Your task to perform on an android device: toggle translation in the chrome app Image 0: 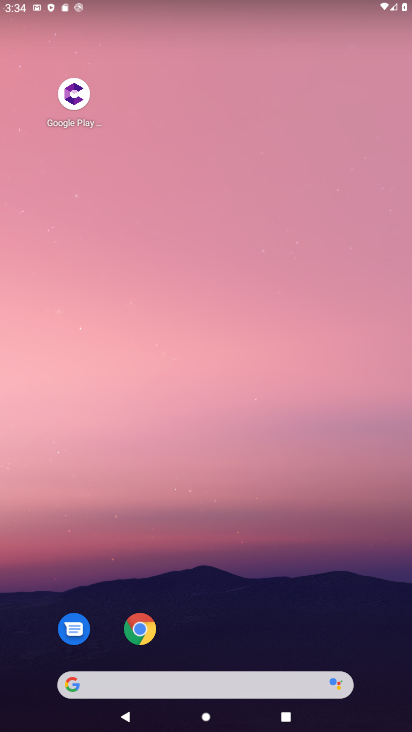
Step 0: drag from (357, 569) to (317, 87)
Your task to perform on an android device: toggle translation in the chrome app Image 1: 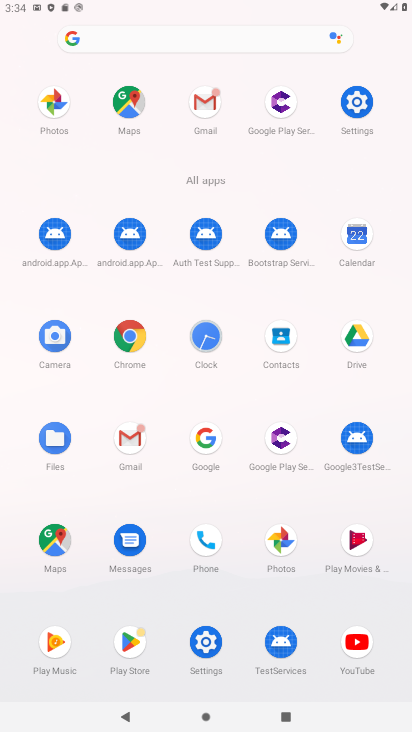
Step 1: click (135, 334)
Your task to perform on an android device: toggle translation in the chrome app Image 2: 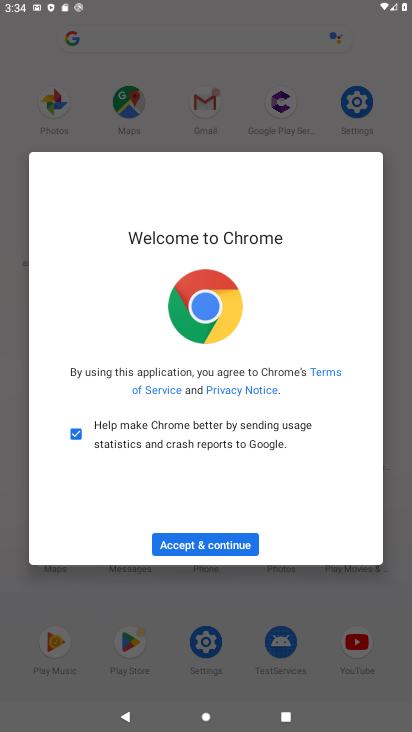
Step 2: click (234, 543)
Your task to perform on an android device: toggle translation in the chrome app Image 3: 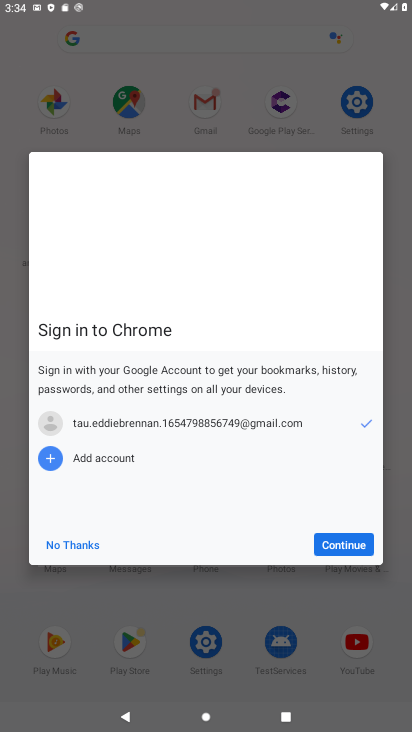
Step 3: click (335, 542)
Your task to perform on an android device: toggle translation in the chrome app Image 4: 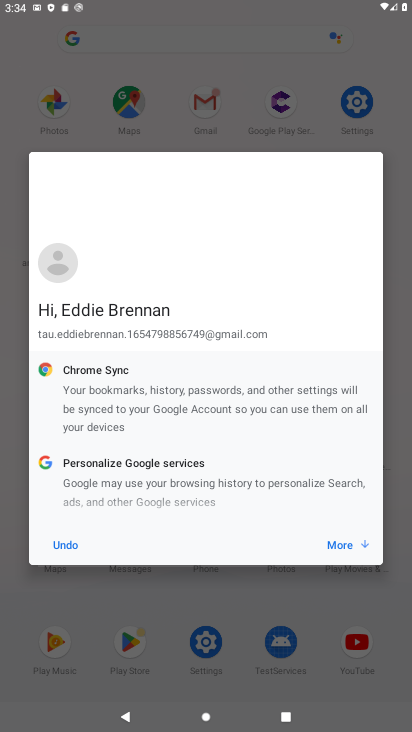
Step 4: click (336, 544)
Your task to perform on an android device: toggle translation in the chrome app Image 5: 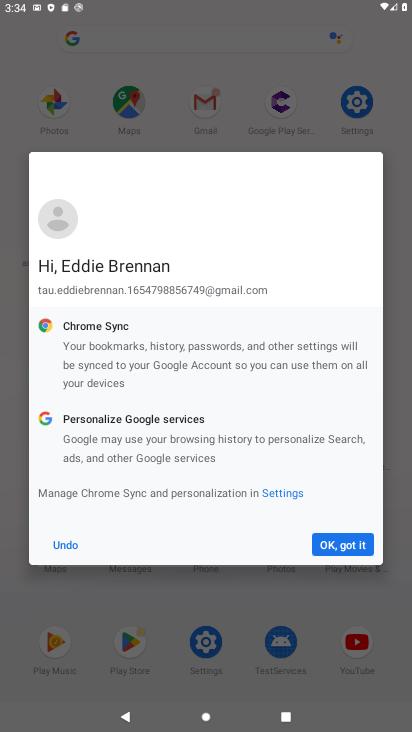
Step 5: click (346, 540)
Your task to perform on an android device: toggle translation in the chrome app Image 6: 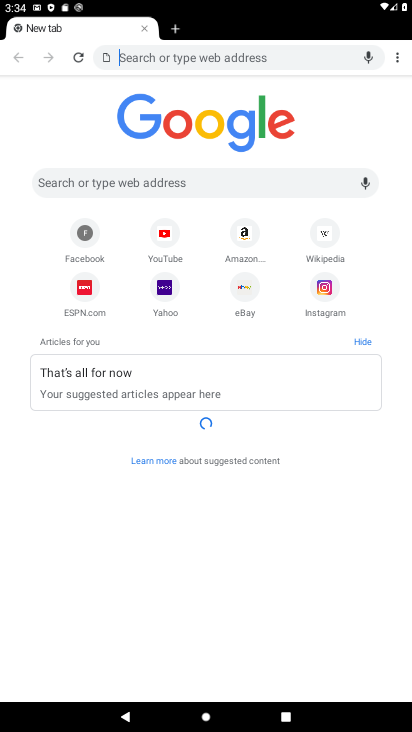
Step 6: drag from (402, 51) to (320, 263)
Your task to perform on an android device: toggle translation in the chrome app Image 7: 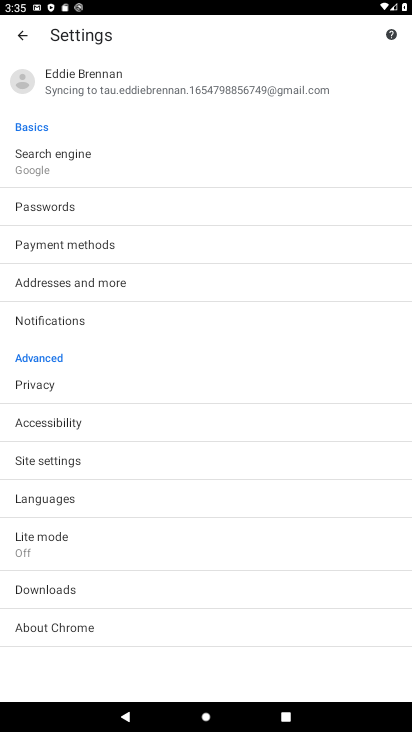
Step 7: click (69, 494)
Your task to perform on an android device: toggle translation in the chrome app Image 8: 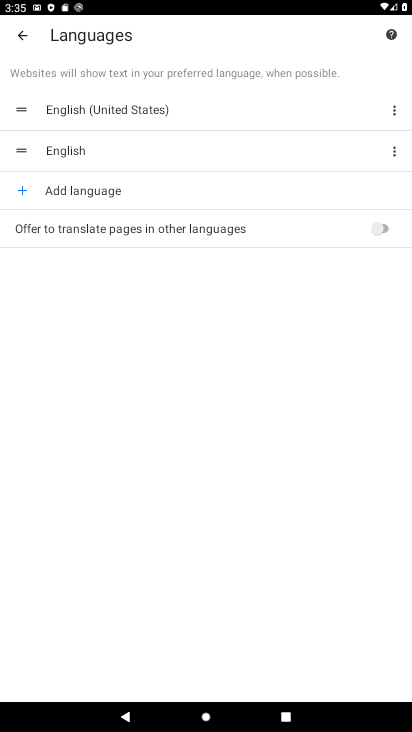
Step 8: click (379, 227)
Your task to perform on an android device: toggle translation in the chrome app Image 9: 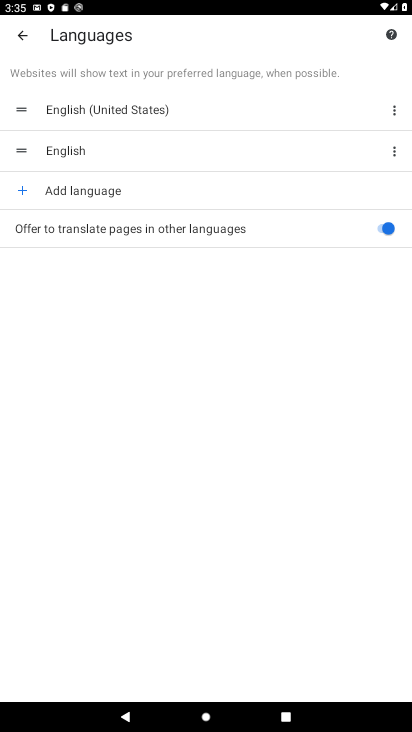
Step 9: task complete